Your task to perform on an android device: View the shopping cart on target. Image 0: 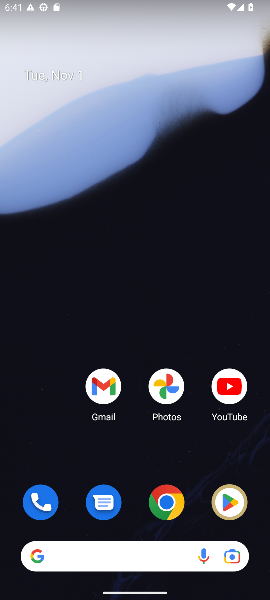
Step 0: click (169, 504)
Your task to perform on an android device: View the shopping cart on target. Image 1: 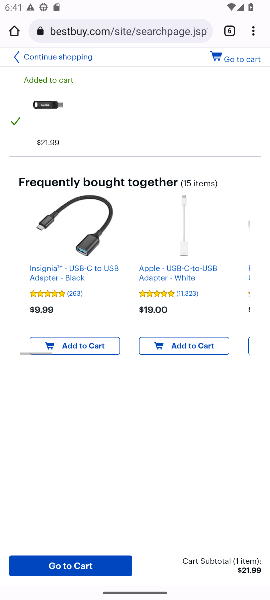
Step 1: click (16, 34)
Your task to perform on an android device: View the shopping cart on target. Image 2: 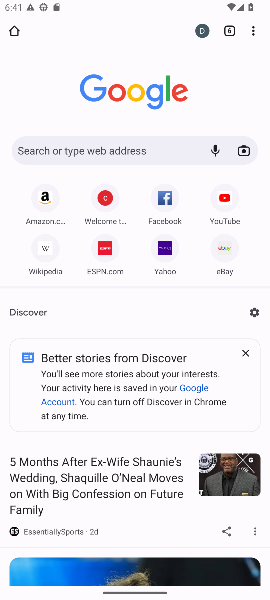
Step 2: click (75, 148)
Your task to perform on an android device: View the shopping cart on target. Image 3: 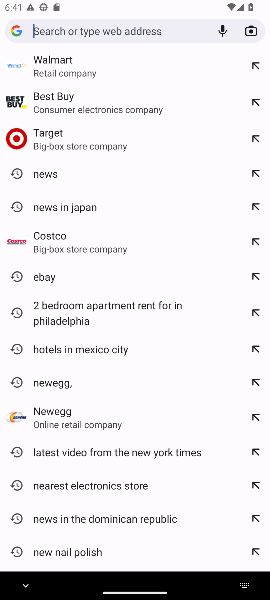
Step 3: click (56, 136)
Your task to perform on an android device: View the shopping cart on target. Image 4: 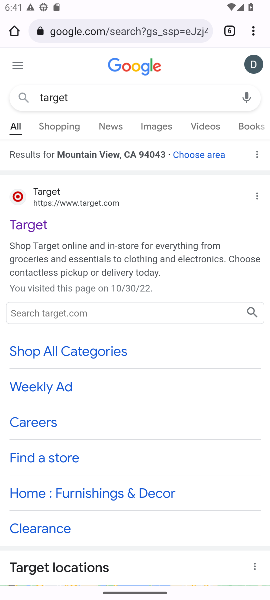
Step 4: click (50, 192)
Your task to perform on an android device: View the shopping cart on target. Image 5: 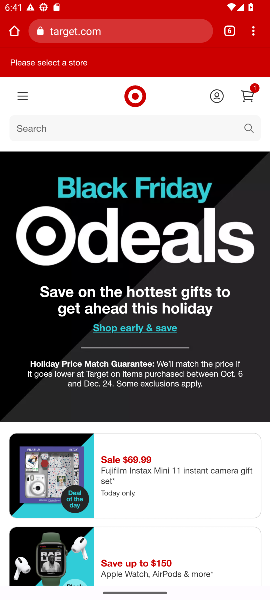
Step 5: task complete